Your task to perform on an android device: Clear the shopping cart on ebay.com. Add logitech g933 to the cart on ebay.com Image 0: 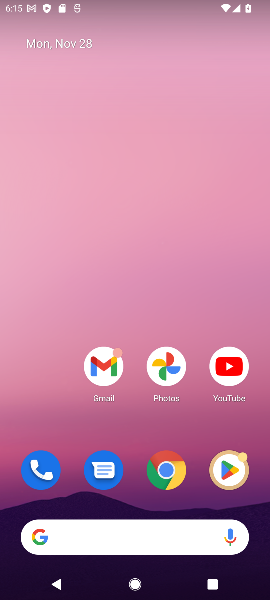
Step 0: click (158, 462)
Your task to perform on an android device: Clear the shopping cart on ebay.com. Add logitech g933 to the cart on ebay.com Image 1: 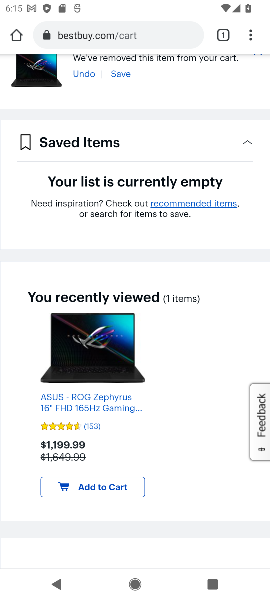
Step 1: click (100, 32)
Your task to perform on an android device: Clear the shopping cart on ebay.com. Add logitech g933 to the cart on ebay.com Image 2: 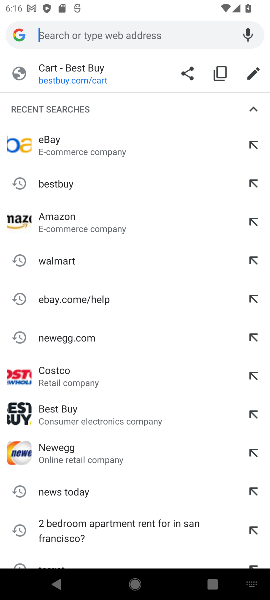
Step 2: type "ebay.com"
Your task to perform on an android device: Clear the shopping cart on ebay.com. Add logitech g933 to the cart on ebay.com Image 3: 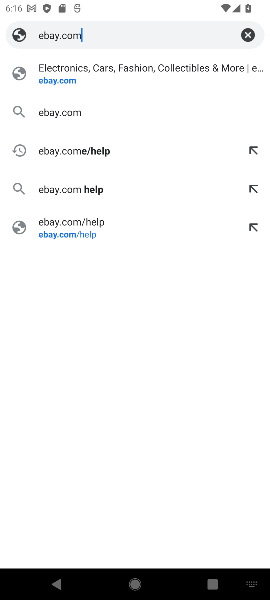
Step 3: click (57, 75)
Your task to perform on an android device: Clear the shopping cart on ebay.com. Add logitech g933 to the cart on ebay.com Image 4: 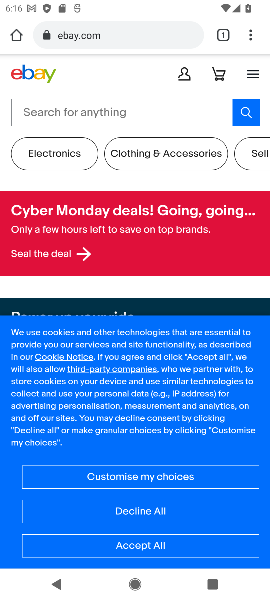
Step 4: click (218, 71)
Your task to perform on an android device: Clear the shopping cart on ebay.com. Add logitech g933 to the cart on ebay.com Image 5: 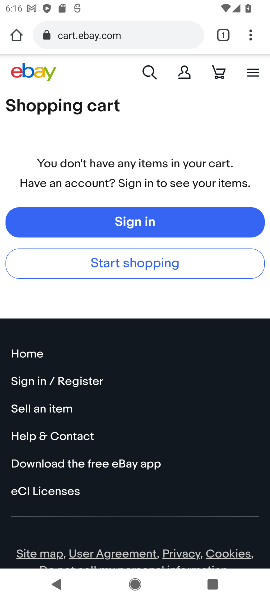
Step 5: click (144, 71)
Your task to perform on an android device: Clear the shopping cart on ebay.com. Add logitech g933 to the cart on ebay.com Image 6: 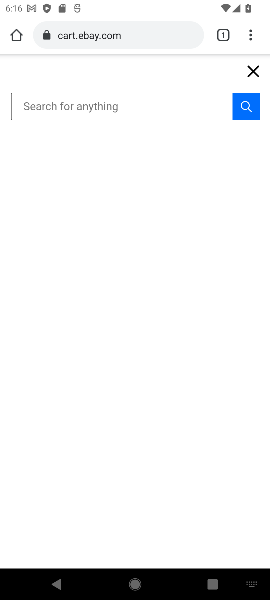
Step 6: type "logitech g933"
Your task to perform on an android device: Clear the shopping cart on ebay.com. Add logitech g933 to the cart on ebay.com Image 7: 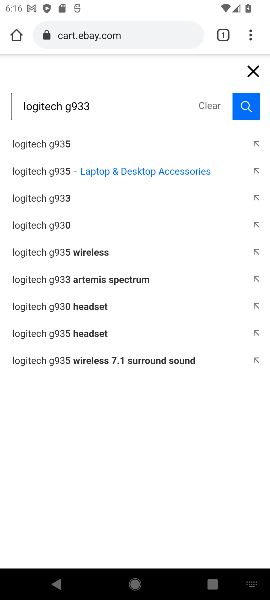
Step 7: click (65, 195)
Your task to perform on an android device: Clear the shopping cart on ebay.com. Add logitech g933 to the cart on ebay.com Image 8: 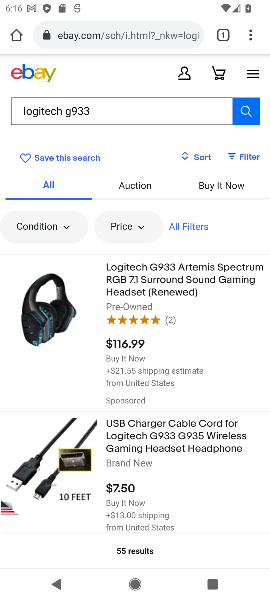
Step 8: click (122, 270)
Your task to perform on an android device: Clear the shopping cart on ebay.com. Add logitech g933 to the cart on ebay.com Image 9: 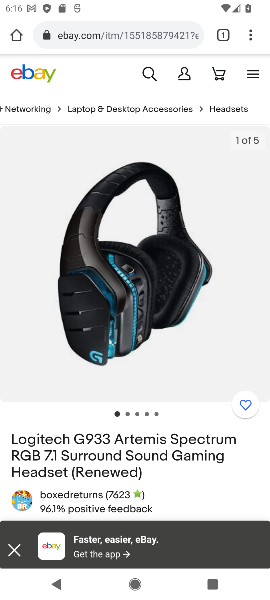
Step 9: drag from (146, 470) to (167, 348)
Your task to perform on an android device: Clear the shopping cart on ebay.com. Add logitech g933 to the cart on ebay.com Image 10: 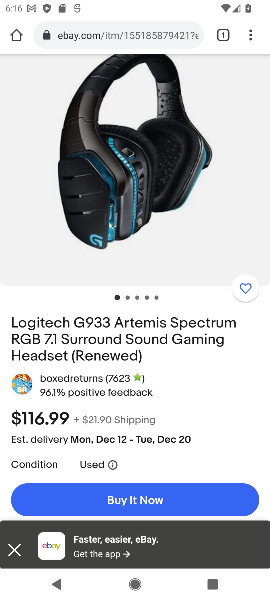
Step 10: drag from (169, 447) to (175, 348)
Your task to perform on an android device: Clear the shopping cart on ebay.com. Add logitech g933 to the cart on ebay.com Image 11: 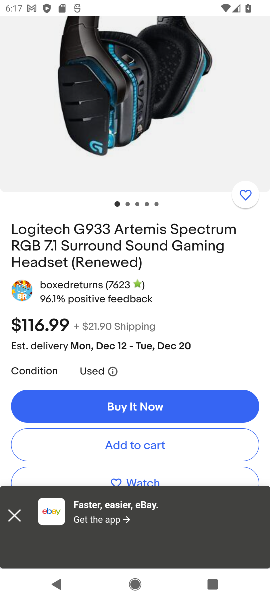
Step 11: click (135, 442)
Your task to perform on an android device: Clear the shopping cart on ebay.com. Add logitech g933 to the cart on ebay.com Image 12: 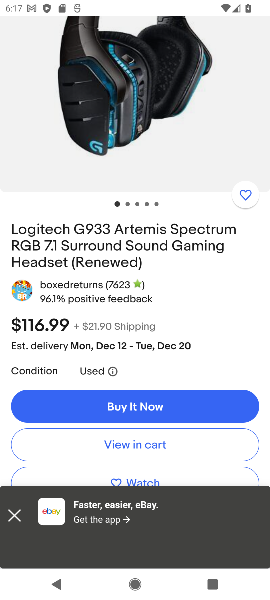
Step 12: task complete